Your task to perform on an android device: View the shopping cart on walmart.com. Image 0: 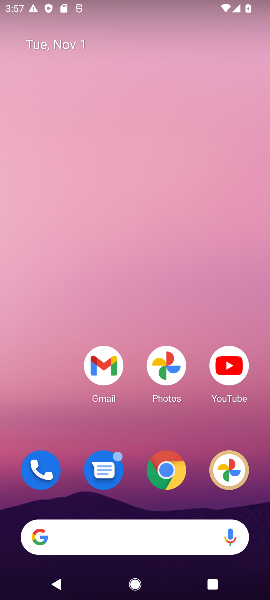
Step 0: click (168, 475)
Your task to perform on an android device: View the shopping cart on walmart.com. Image 1: 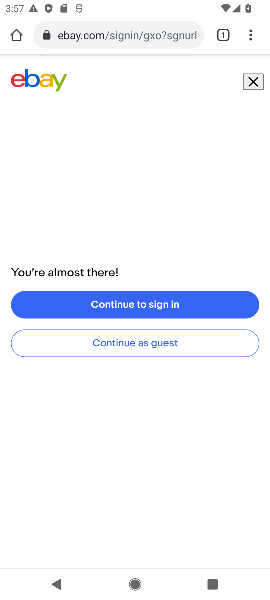
Step 1: click (97, 39)
Your task to perform on an android device: View the shopping cart on walmart.com. Image 2: 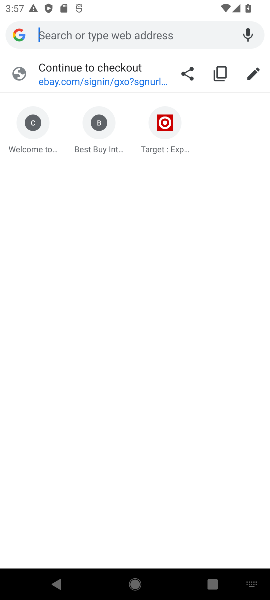
Step 2: type "walmart"
Your task to perform on an android device: View the shopping cart on walmart.com. Image 3: 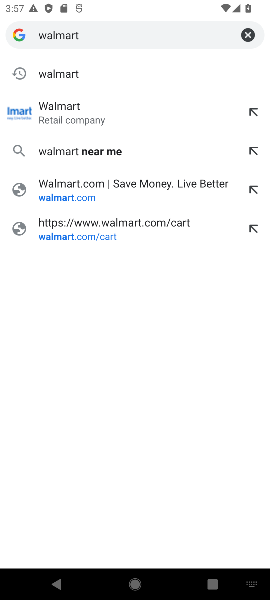
Step 3: click (71, 75)
Your task to perform on an android device: View the shopping cart on walmart.com. Image 4: 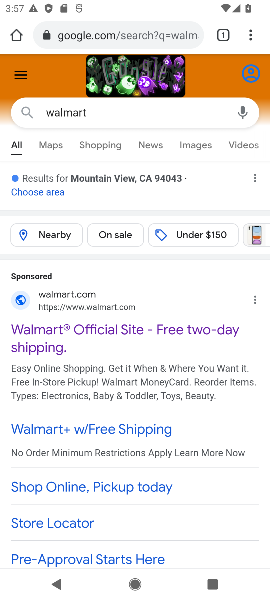
Step 4: drag from (202, 420) to (180, 190)
Your task to perform on an android device: View the shopping cart on walmart.com. Image 5: 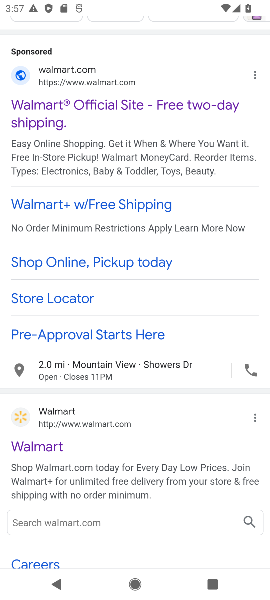
Step 5: click (34, 446)
Your task to perform on an android device: View the shopping cart on walmart.com. Image 6: 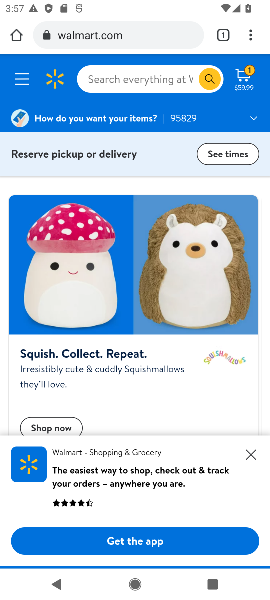
Step 6: click (249, 454)
Your task to perform on an android device: View the shopping cart on walmart.com. Image 7: 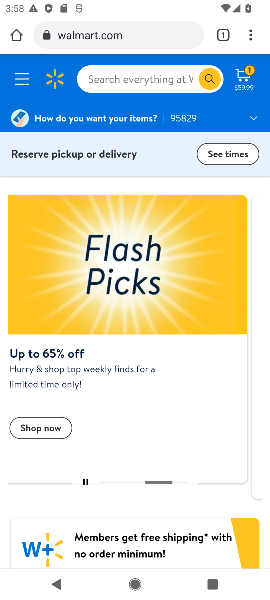
Step 7: click (241, 76)
Your task to perform on an android device: View the shopping cart on walmart.com. Image 8: 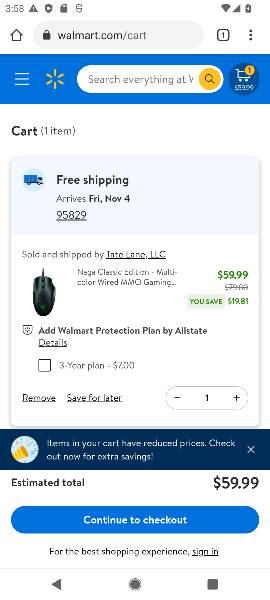
Step 8: task complete